Your task to perform on an android device: Open the Play Movies app and select the watchlist tab. Image 0: 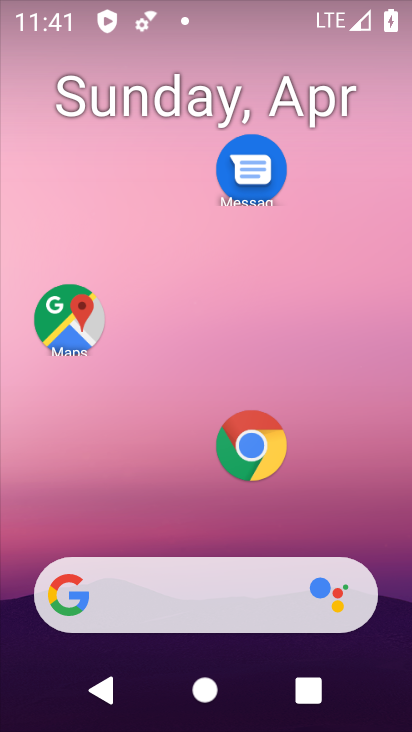
Step 0: drag from (168, 599) to (341, 59)
Your task to perform on an android device: Open the Play Movies app and select the watchlist tab. Image 1: 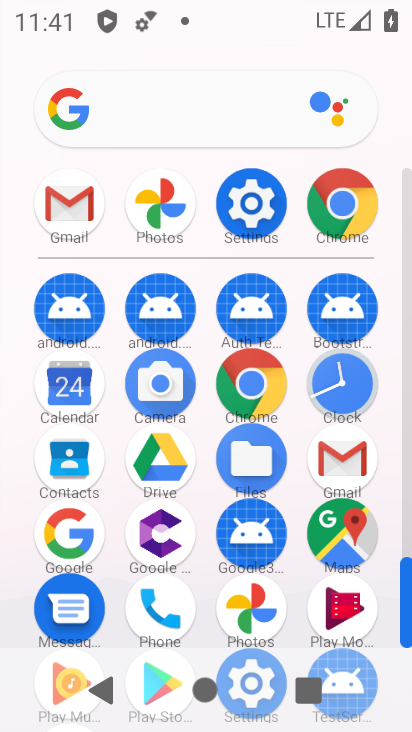
Step 1: click (334, 614)
Your task to perform on an android device: Open the Play Movies app and select the watchlist tab. Image 2: 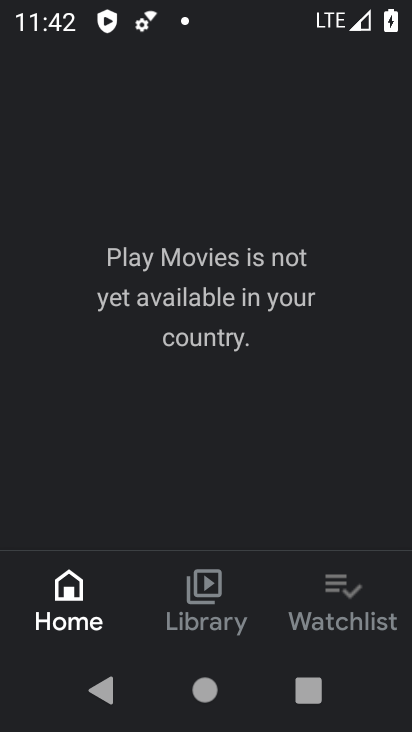
Step 2: click (332, 612)
Your task to perform on an android device: Open the Play Movies app and select the watchlist tab. Image 3: 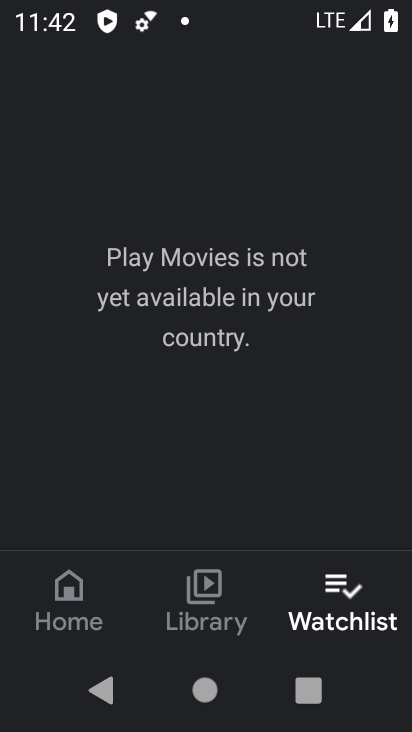
Step 3: task complete